Your task to perform on an android device: toggle show notifications on the lock screen Image 0: 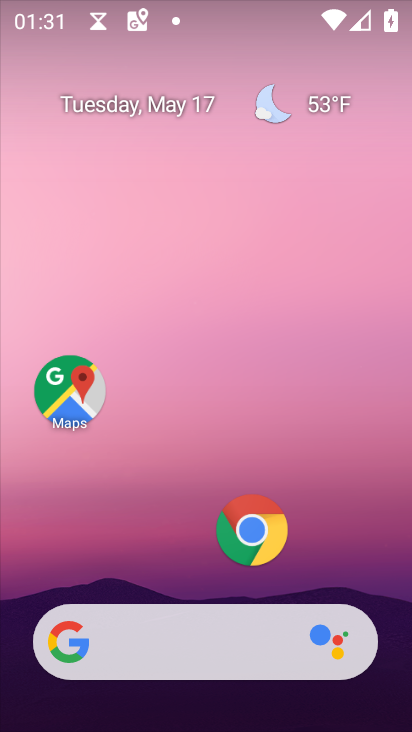
Step 0: drag from (174, 571) to (212, 126)
Your task to perform on an android device: toggle show notifications on the lock screen Image 1: 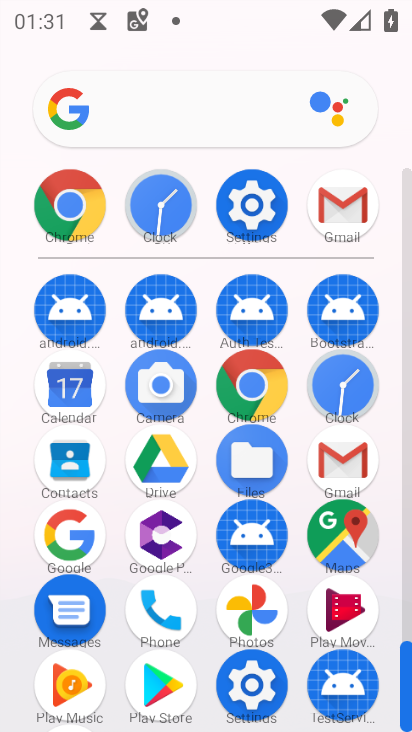
Step 1: click (258, 210)
Your task to perform on an android device: toggle show notifications on the lock screen Image 2: 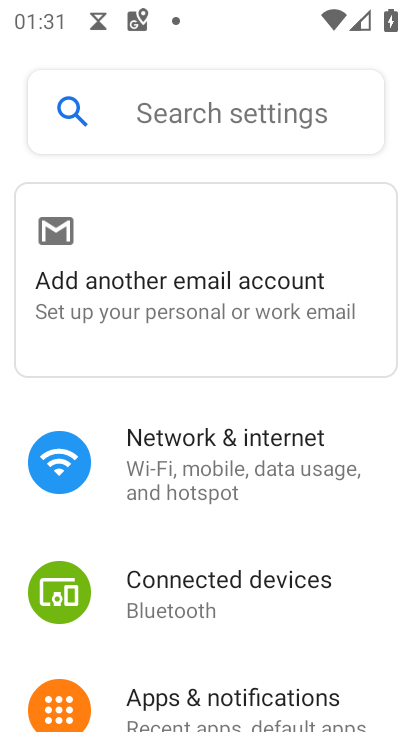
Step 2: click (254, 699)
Your task to perform on an android device: toggle show notifications on the lock screen Image 3: 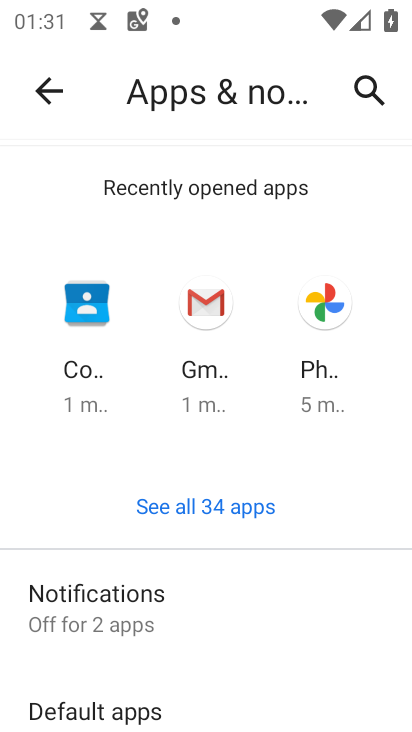
Step 3: drag from (280, 681) to (304, 303)
Your task to perform on an android device: toggle show notifications on the lock screen Image 4: 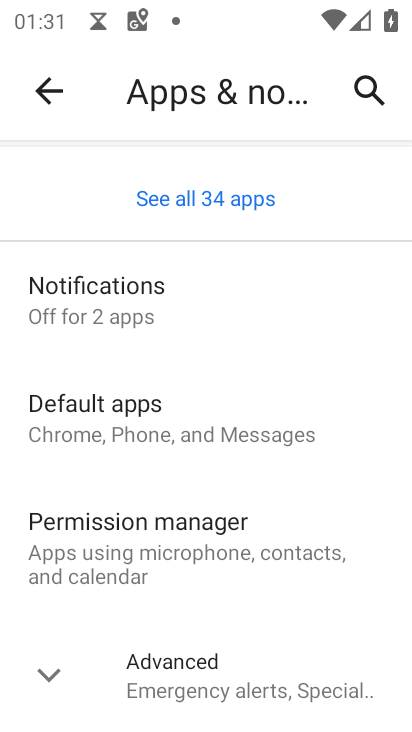
Step 4: click (168, 306)
Your task to perform on an android device: toggle show notifications on the lock screen Image 5: 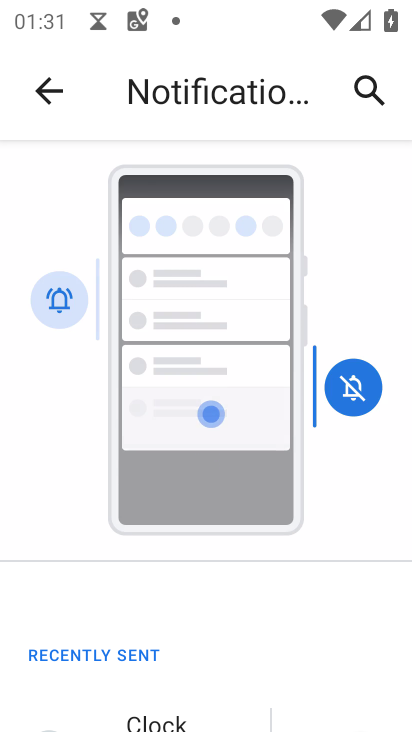
Step 5: drag from (304, 603) to (315, 167)
Your task to perform on an android device: toggle show notifications on the lock screen Image 6: 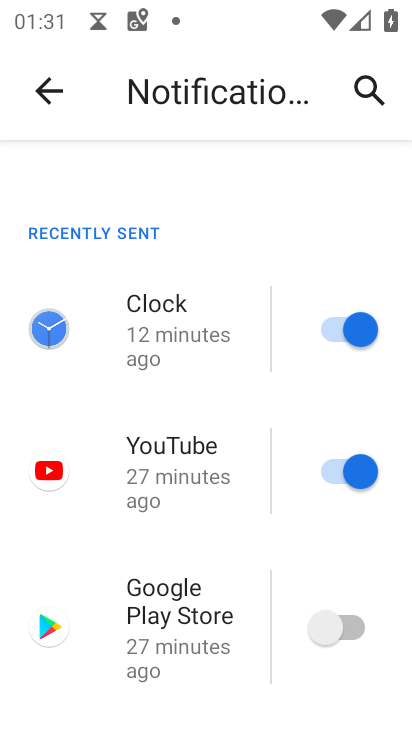
Step 6: drag from (257, 643) to (268, 367)
Your task to perform on an android device: toggle show notifications on the lock screen Image 7: 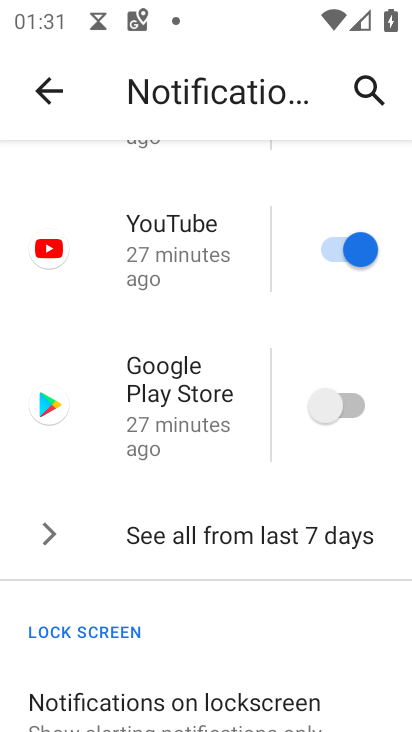
Step 7: click (262, 704)
Your task to perform on an android device: toggle show notifications on the lock screen Image 8: 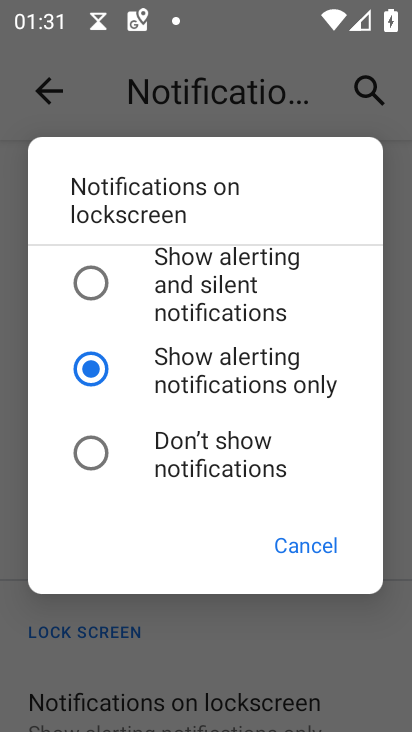
Step 8: click (96, 276)
Your task to perform on an android device: toggle show notifications on the lock screen Image 9: 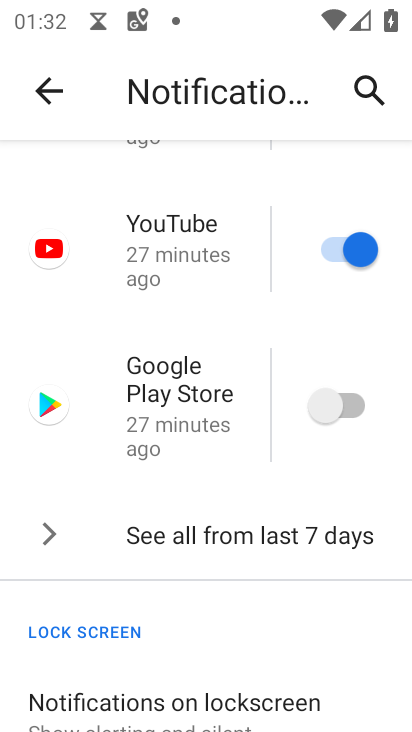
Step 9: task complete